Your task to perform on an android device: empty trash in the gmail app Image 0: 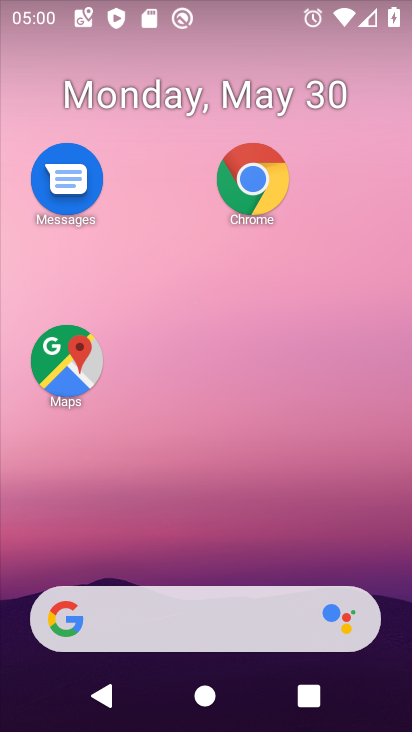
Step 0: drag from (210, 556) to (229, 69)
Your task to perform on an android device: empty trash in the gmail app Image 1: 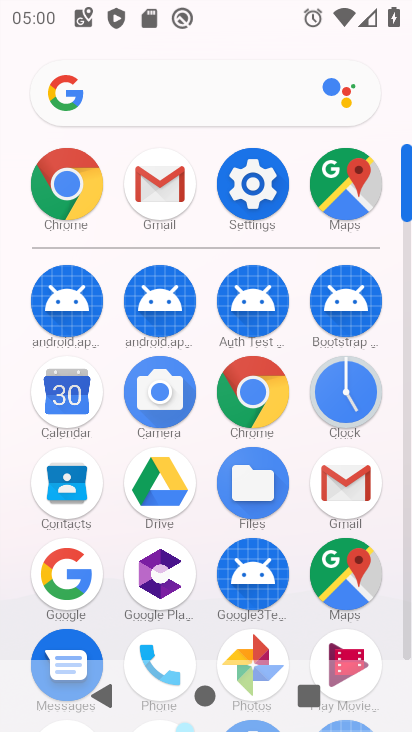
Step 1: click (355, 479)
Your task to perform on an android device: empty trash in the gmail app Image 2: 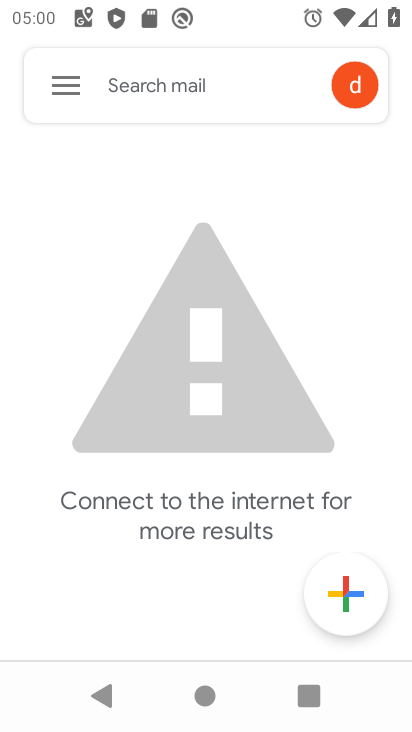
Step 2: click (62, 87)
Your task to perform on an android device: empty trash in the gmail app Image 3: 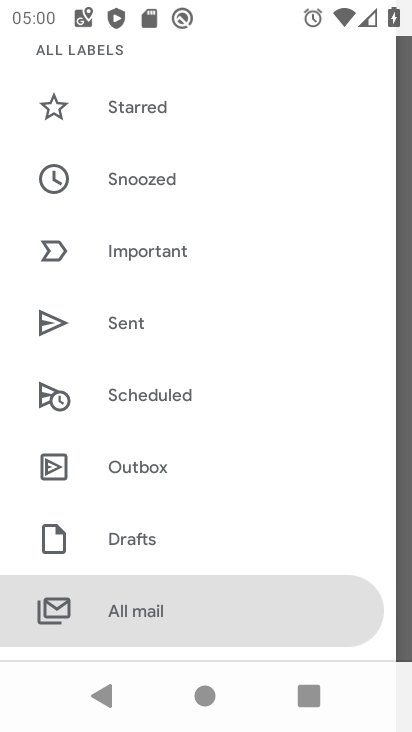
Step 3: drag from (193, 201) to (185, 495)
Your task to perform on an android device: empty trash in the gmail app Image 4: 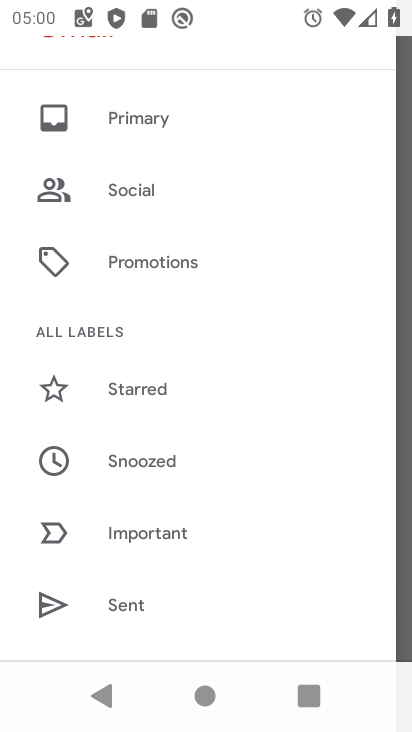
Step 4: drag from (159, 547) to (209, 230)
Your task to perform on an android device: empty trash in the gmail app Image 5: 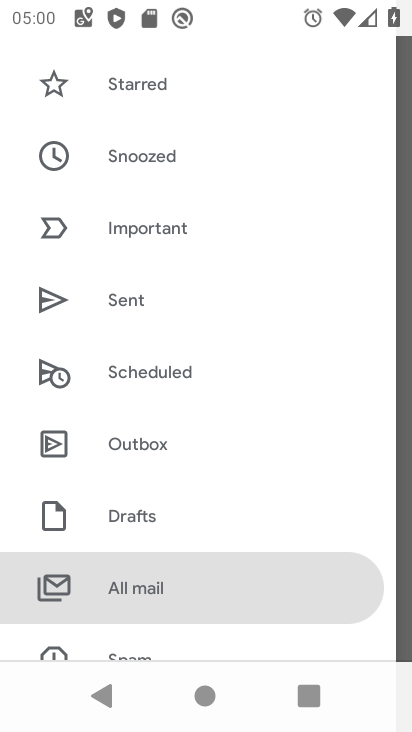
Step 5: drag from (200, 254) to (156, 628)
Your task to perform on an android device: empty trash in the gmail app Image 6: 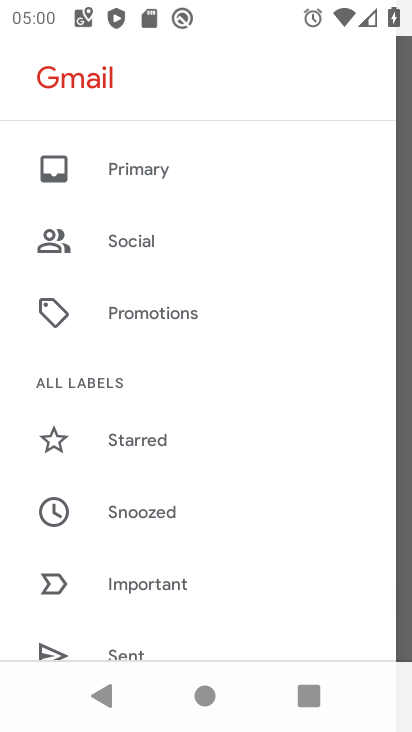
Step 6: drag from (183, 530) to (245, 138)
Your task to perform on an android device: empty trash in the gmail app Image 7: 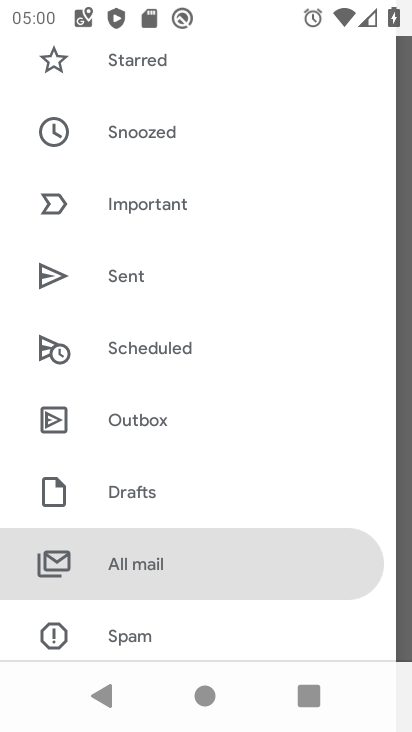
Step 7: drag from (172, 505) to (265, 158)
Your task to perform on an android device: empty trash in the gmail app Image 8: 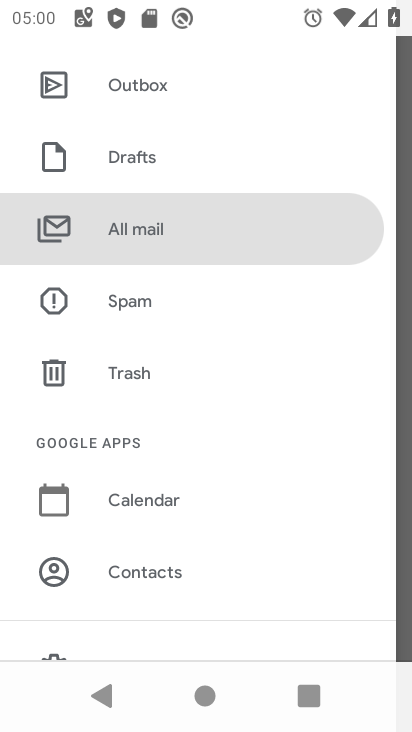
Step 8: click (134, 368)
Your task to perform on an android device: empty trash in the gmail app Image 9: 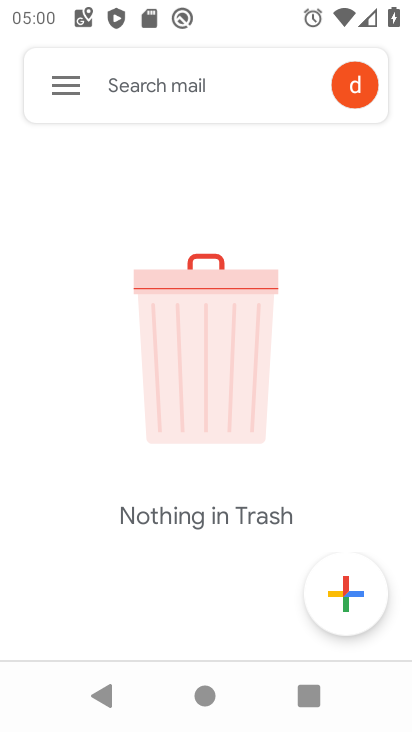
Step 9: task complete